Your task to perform on an android device: Search for sushi restaurants on Maps Image 0: 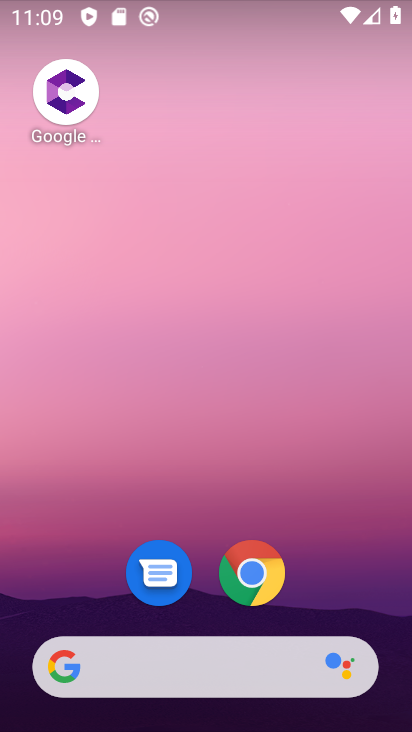
Step 0: drag from (47, 633) to (253, 157)
Your task to perform on an android device: Search for sushi restaurants on Maps Image 1: 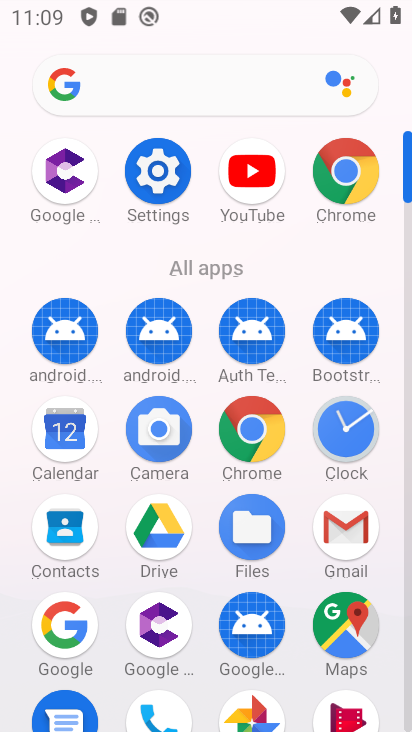
Step 1: click (339, 633)
Your task to perform on an android device: Search for sushi restaurants on Maps Image 2: 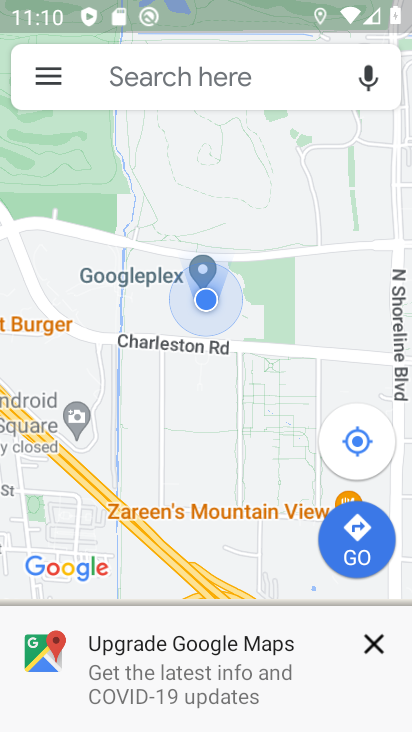
Step 2: click (195, 75)
Your task to perform on an android device: Search for sushi restaurants on Maps Image 3: 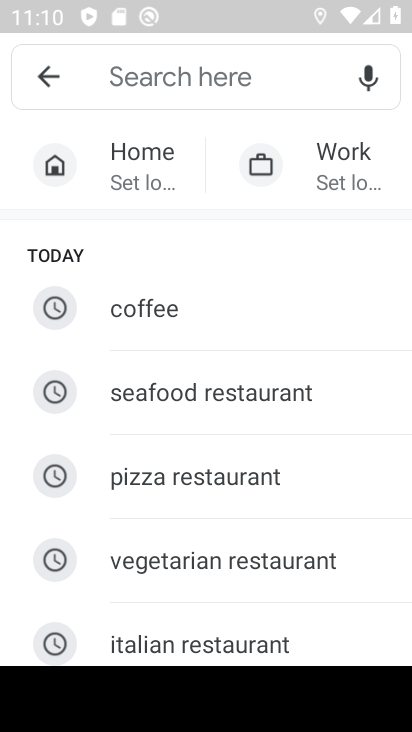
Step 3: type "sushi restaurants"
Your task to perform on an android device: Search for sushi restaurants on Maps Image 4: 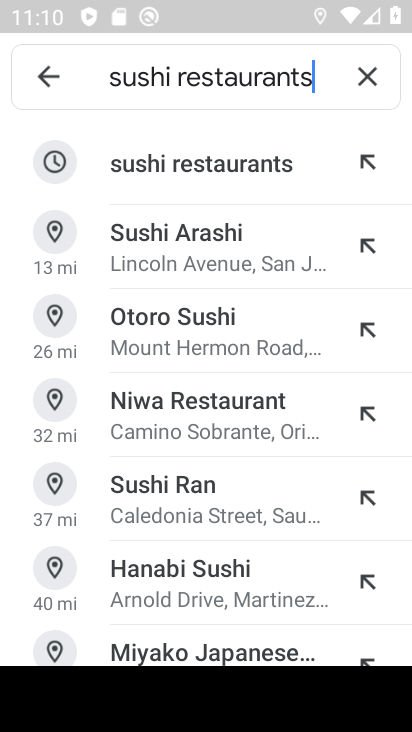
Step 4: click (228, 160)
Your task to perform on an android device: Search for sushi restaurants on Maps Image 5: 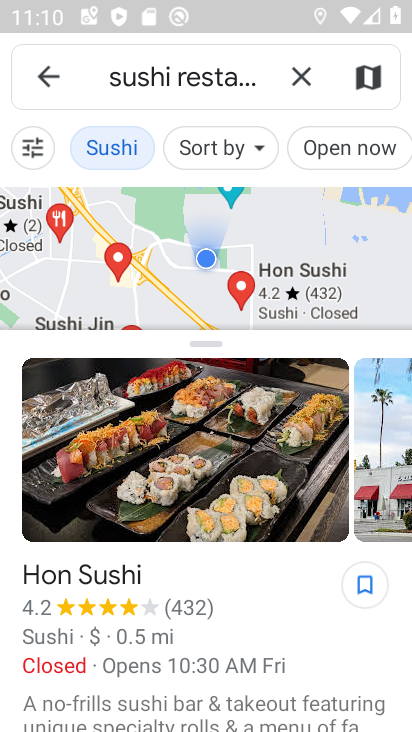
Step 5: task complete